Your task to perform on an android device: change timer sound Image 0: 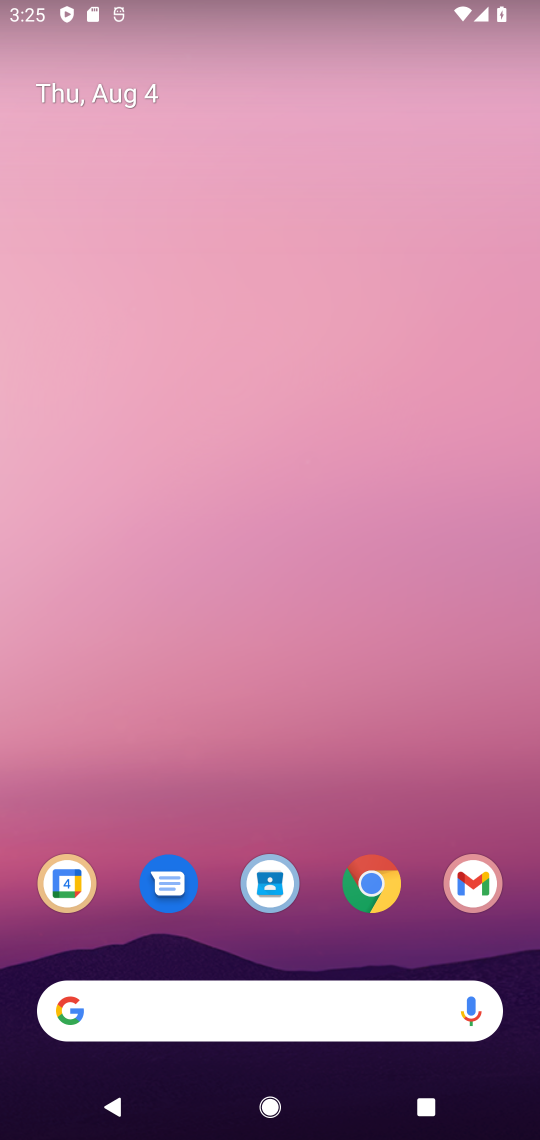
Step 0: drag from (366, 812) to (61, 1)
Your task to perform on an android device: change timer sound Image 1: 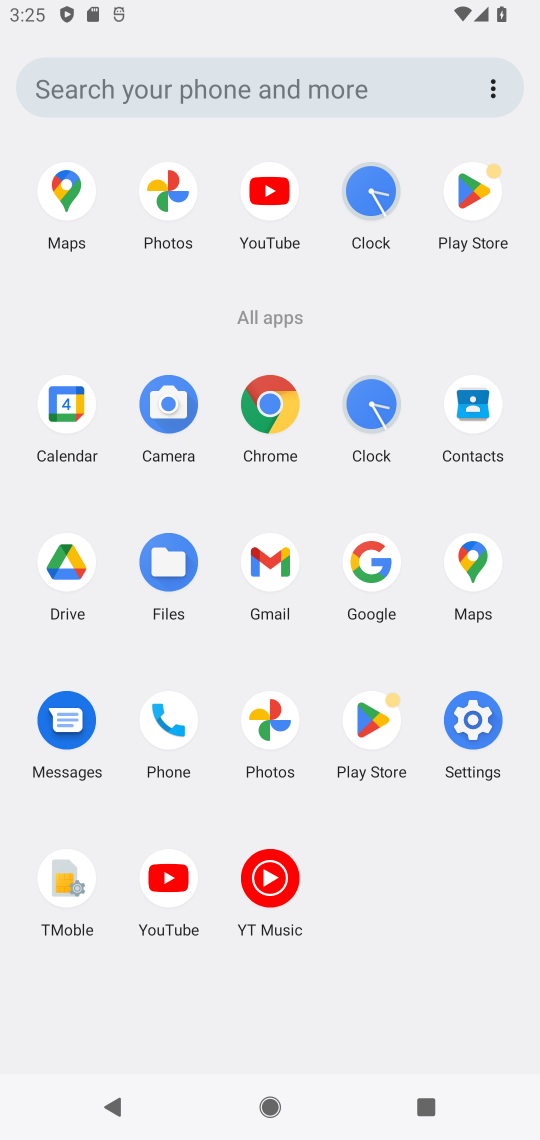
Step 1: press home button
Your task to perform on an android device: change timer sound Image 2: 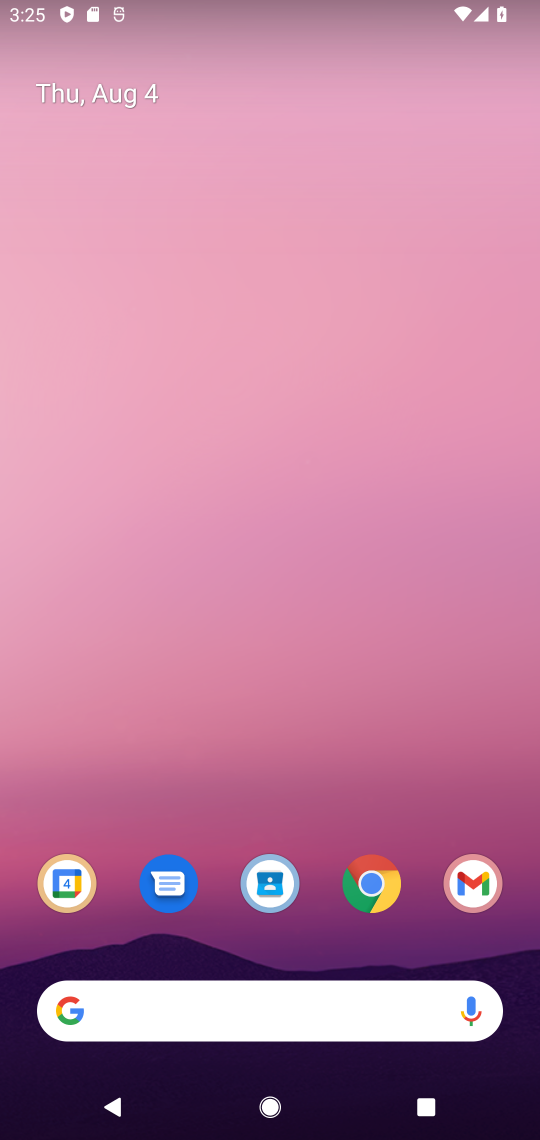
Step 2: drag from (408, 856) to (126, 2)
Your task to perform on an android device: change timer sound Image 3: 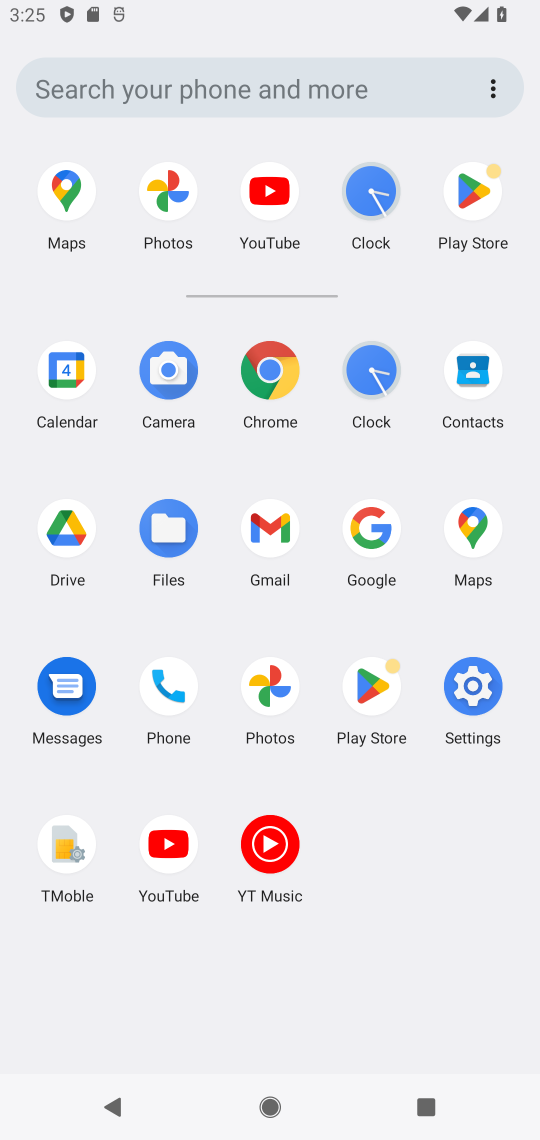
Step 3: click (376, 374)
Your task to perform on an android device: change timer sound Image 4: 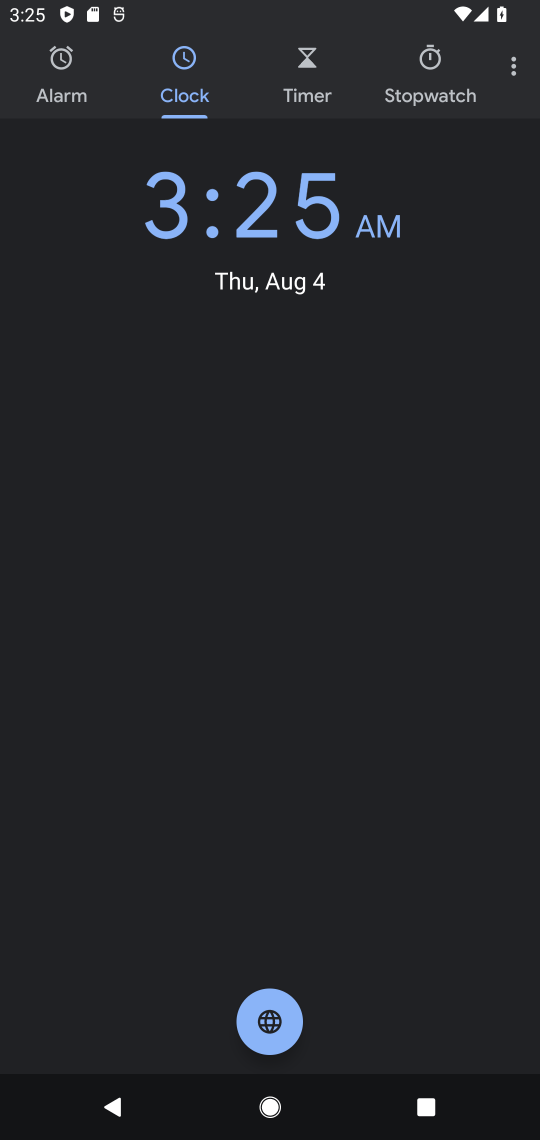
Step 4: click (513, 68)
Your task to perform on an android device: change timer sound Image 5: 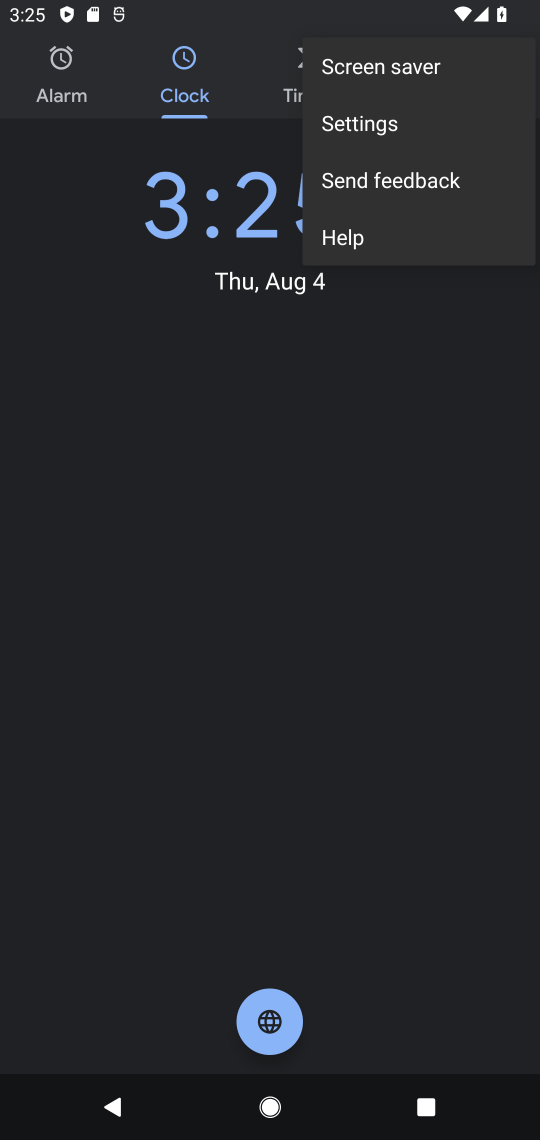
Step 5: click (350, 137)
Your task to perform on an android device: change timer sound Image 6: 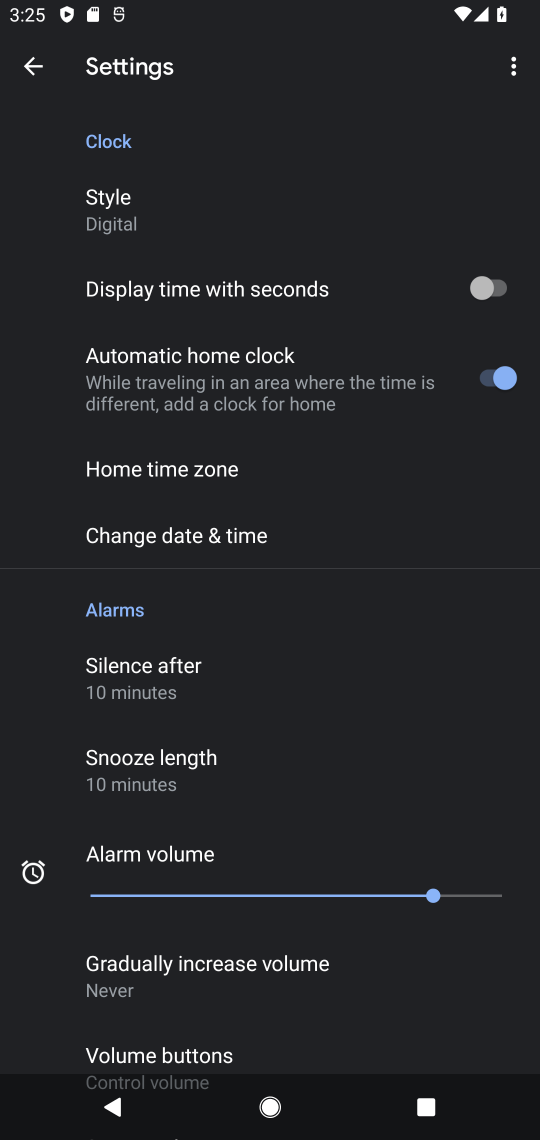
Step 6: drag from (250, 983) to (197, 400)
Your task to perform on an android device: change timer sound Image 7: 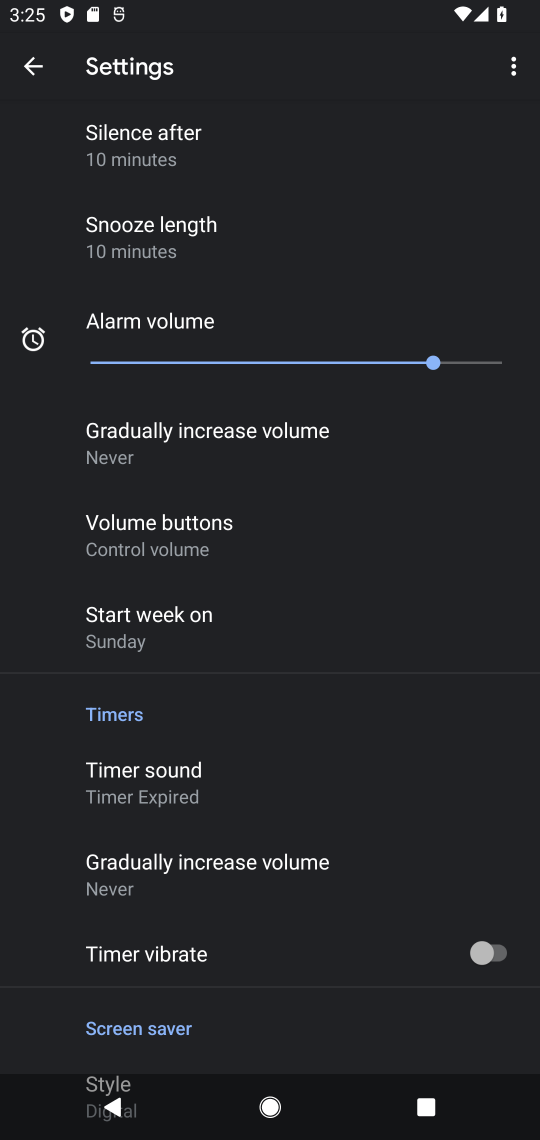
Step 7: click (193, 802)
Your task to perform on an android device: change timer sound Image 8: 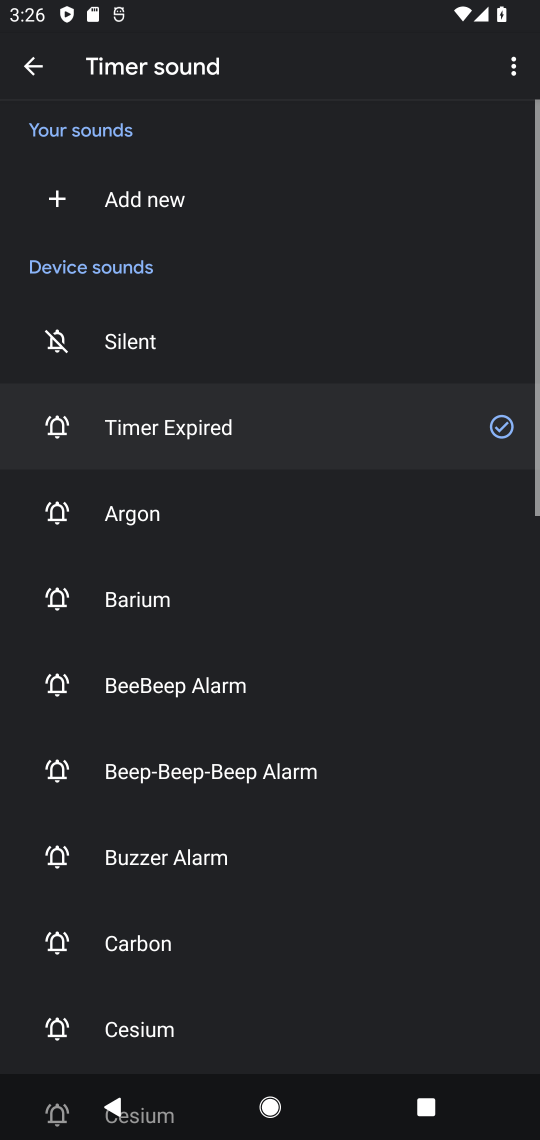
Step 8: click (210, 780)
Your task to perform on an android device: change timer sound Image 9: 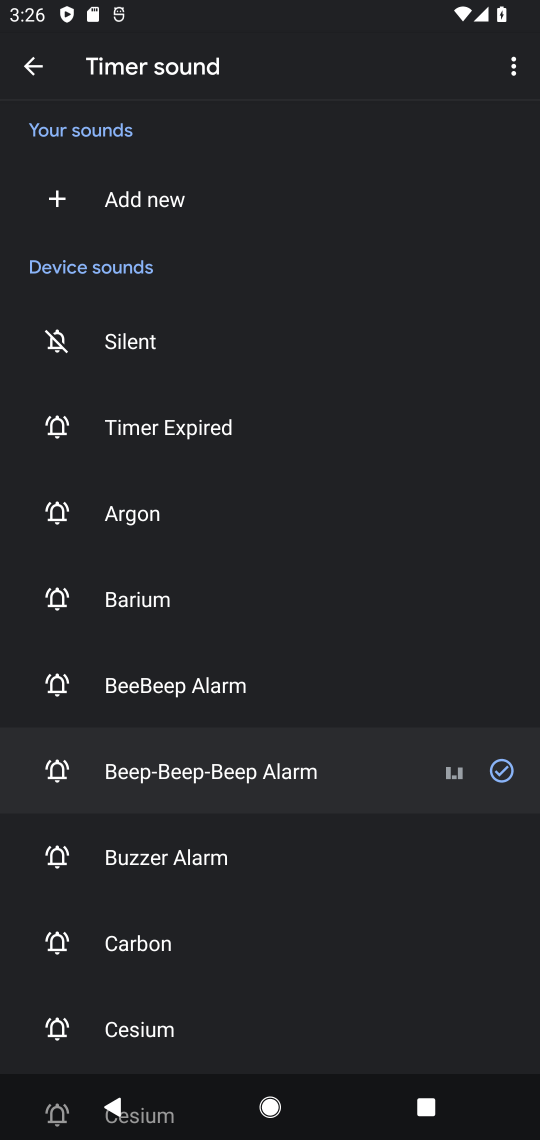
Step 9: task complete